Your task to perform on an android device: Search for Italian restaurants on Maps Image 0: 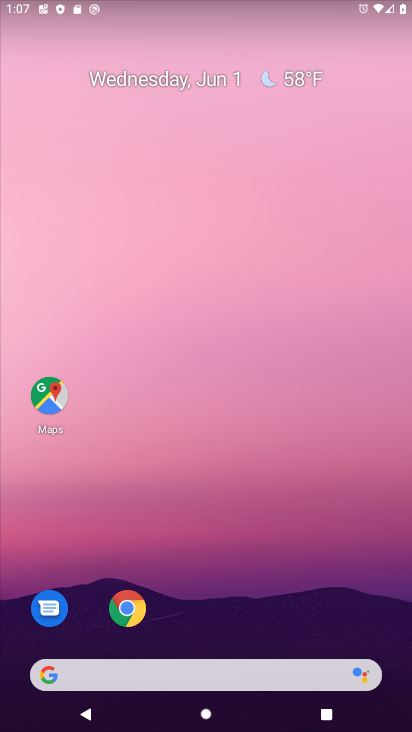
Step 0: drag from (279, 534) to (273, 125)
Your task to perform on an android device: Search for Italian restaurants on Maps Image 1: 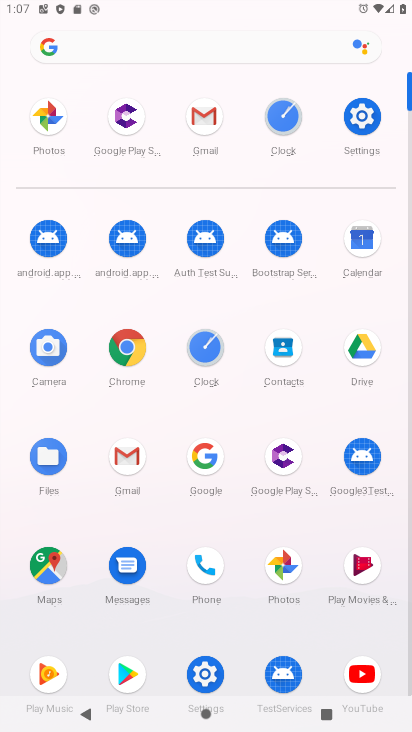
Step 1: click (44, 562)
Your task to perform on an android device: Search for Italian restaurants on Maps Image 2: 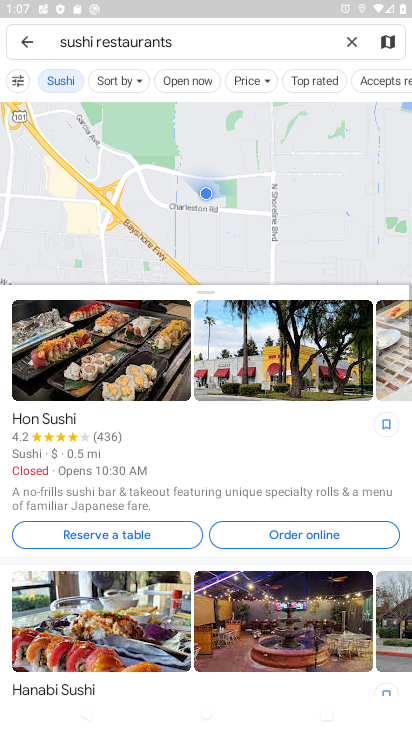
Step 2: click (344, 42)
Your task to perform on an android device: Search for Italian restaurants on Maps Image 3: 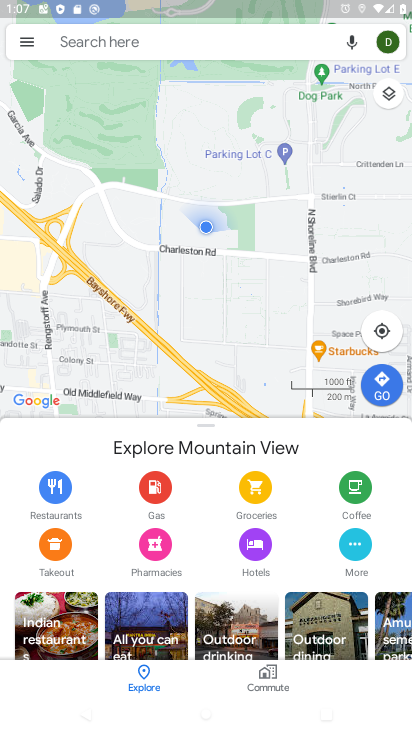
Step 3: click (216, 37)
Your task to perform on an android device: Search for Italian restaurants on Maps Image 4: 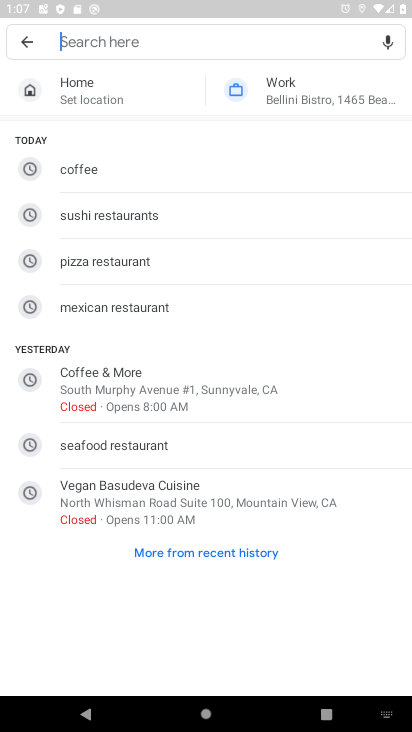
Step 4: type "Italian restaurant"
Your task to perform on an android device: Search for Italian restaurants on Maps Image 5: 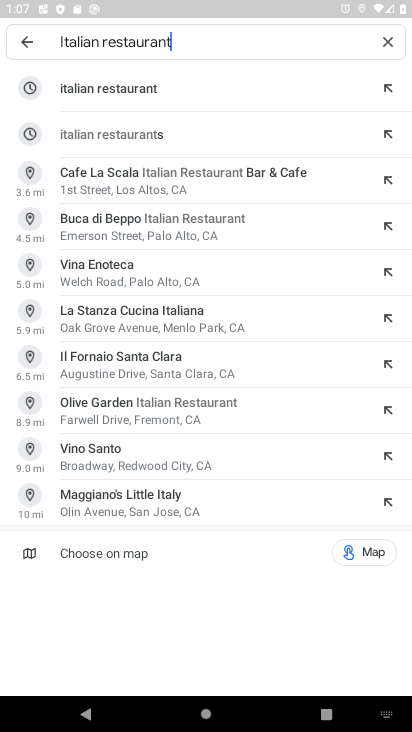
Step 5: click (86, 91)
Your task to perform on an android device: Search for Italian restaurants on Maps Image 6: 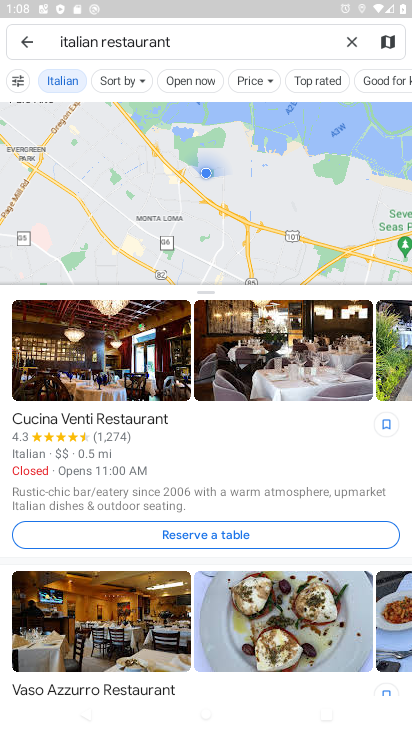
Step 6: task complete